Your task to perform on an android device: turn off improve location accuracy Image 0: 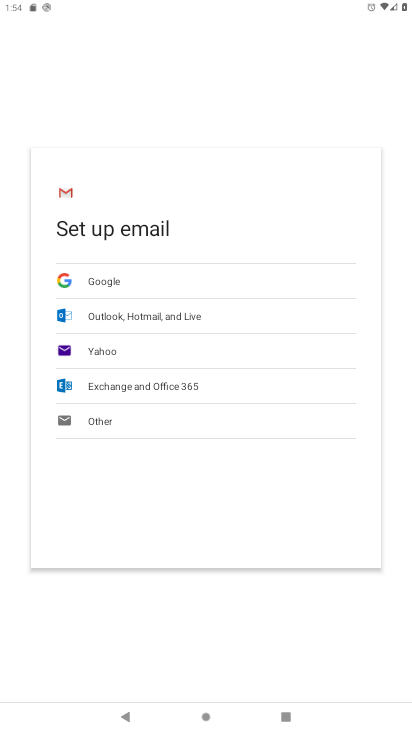
Step 0: press home button
Your task to perform on an android device: turn off improve location accuracy Image 1: 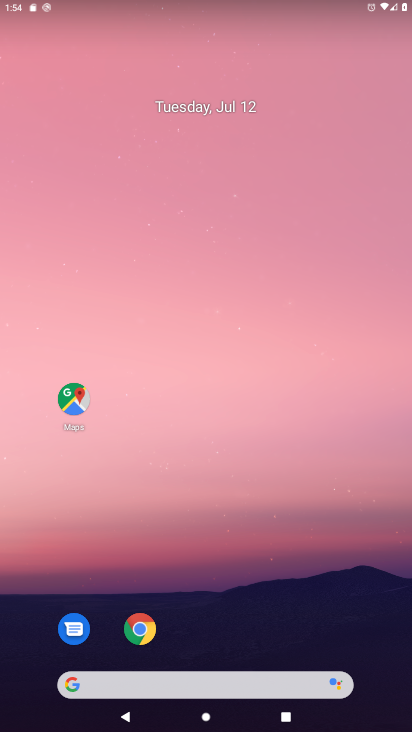
Step 1: drag from (324, 691) to (191, 69)
Your task to perform on an android device: turn off improve location accuracy Image 2: 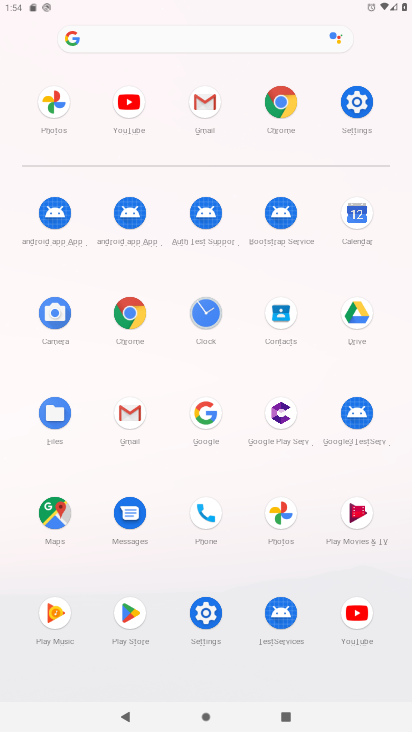
Step 2: click (342, 98)
Your task to perform on an android device: turn off improve location accuracy Image 3: 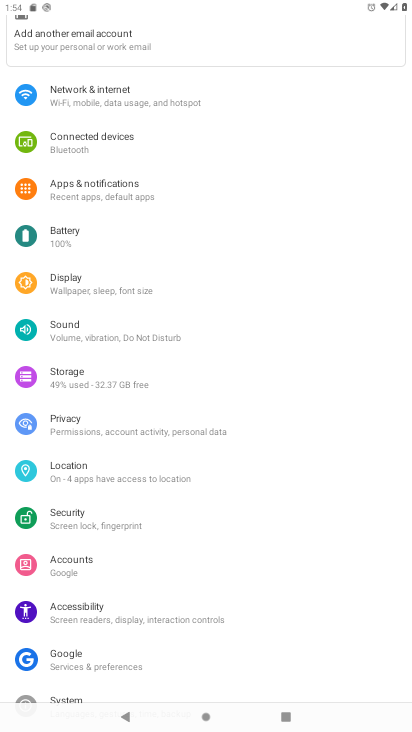
Step 3: click (105, 469)
Your task to perform on an android device: turn off improve location accuracy Image 4: 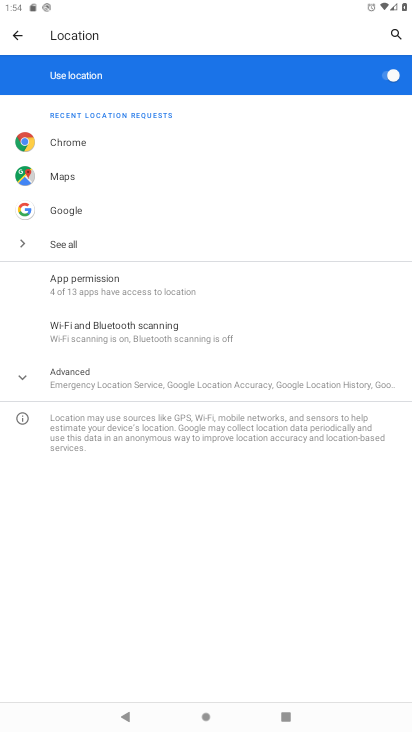
Step 4: click (114, 385)
Your task to perform on an android device: turn off improve location accuracy Image 5: 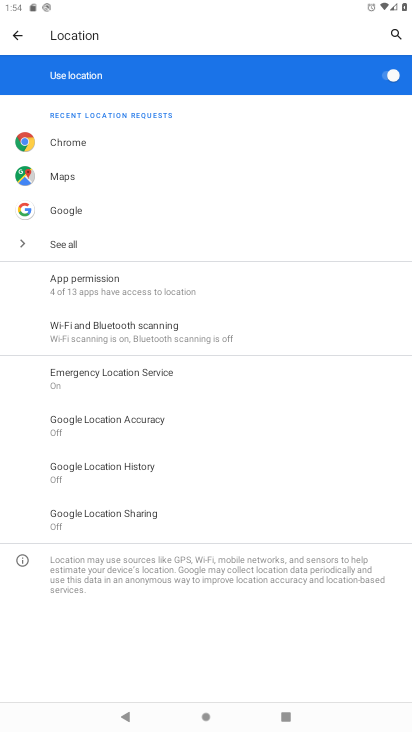
Step 5: click (127, 425)
Your task to perform on an android device: turn off improve location accuracy Image 6: 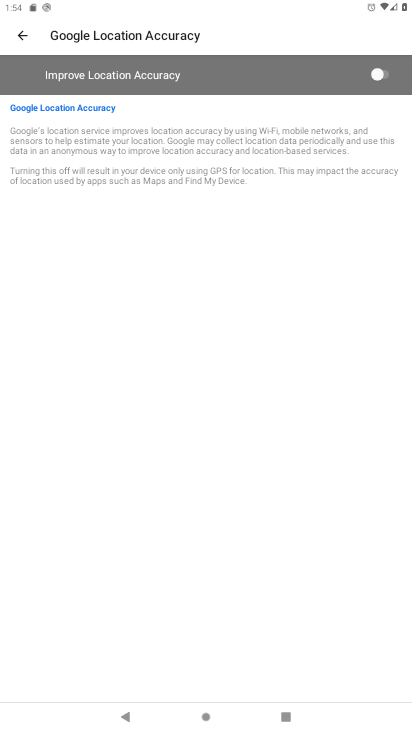
Step 6: task complete